Your task to perform on an android device: Do I have any events tomorrow? Image 0: 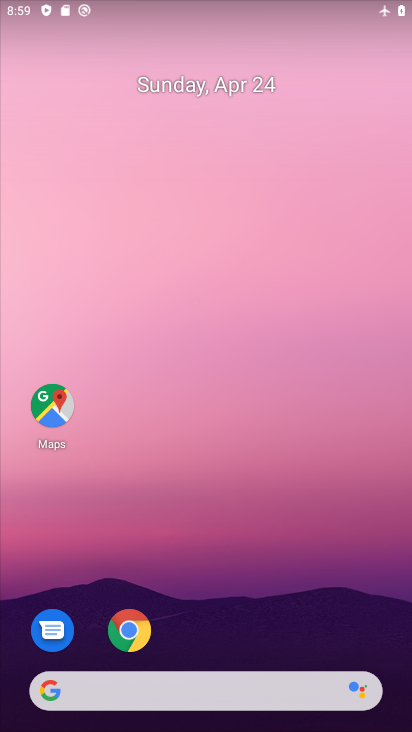
Step 0: drag from (258, 403) to (270, 171)
Your task to perform on an android device: Do I have any events tomorrow? Image 1: 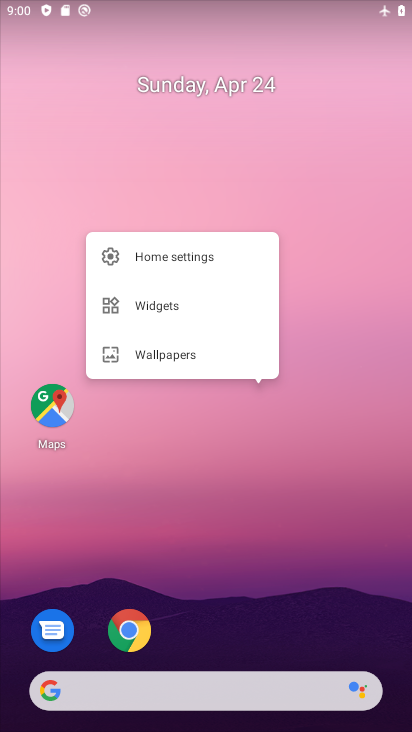
Step 1: click (42, 419)
Your task to perform on an android device: Do I have any events tomorrow? Image 2: 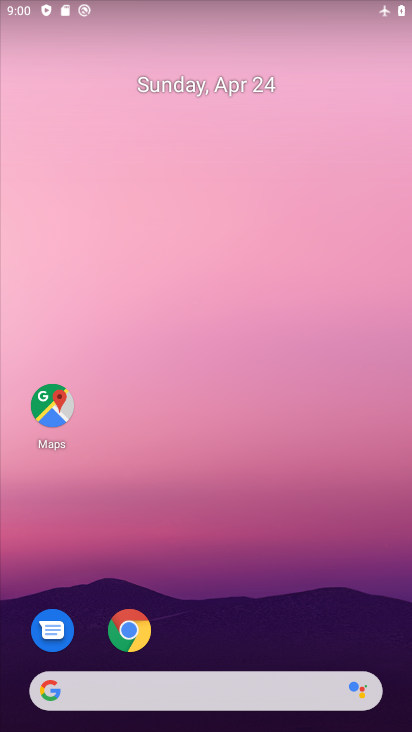
Step 2: drag from (135, 429) to (147, 132)
Your task to perform on an android device: Do I have any events tomorrow? Image 3: 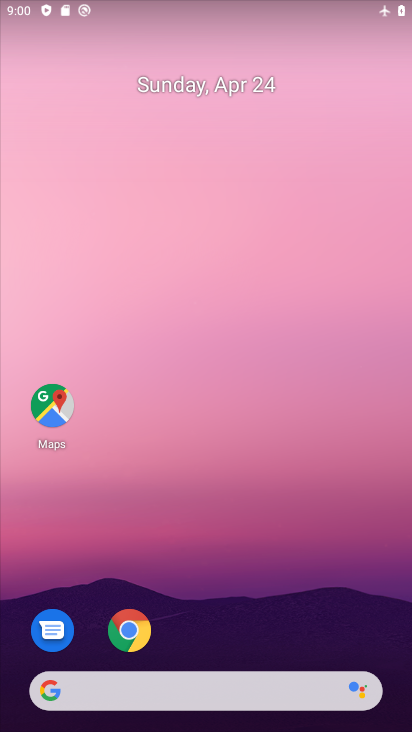
Step 3: drag from (225, 609) to (230, 81)
Your task to perform on an android device: Do I have any events tomorrow? Image 4: 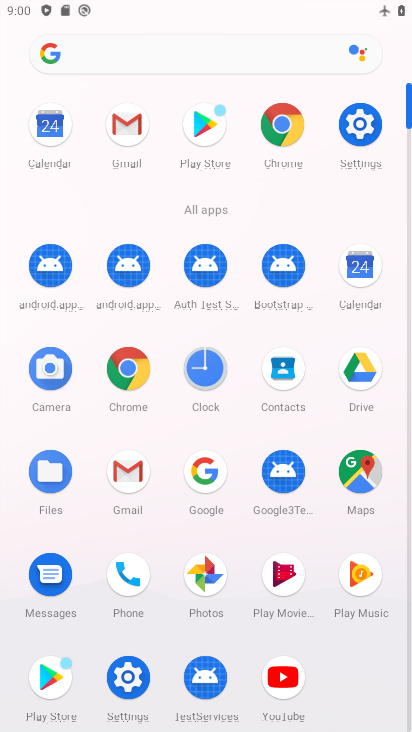
Step 4: click (356, 259)
Your task to perform on an android device: Do I have any events tomorrow? Image 5: 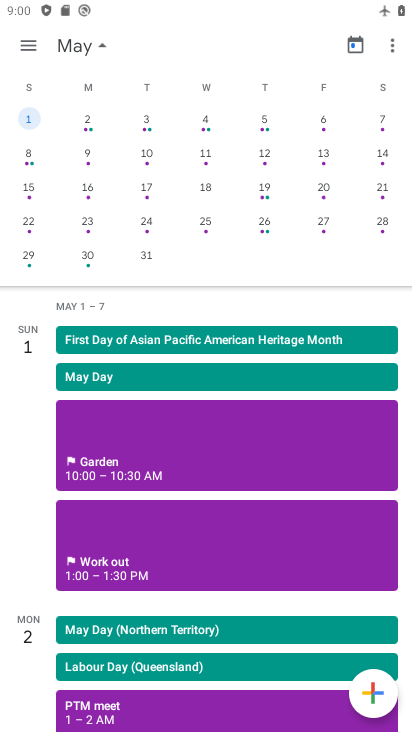
Step 5: drag from (29, 140) to (411, 146)
Your task to perform on an android device: Do I have any events tomorrow? Image 6: 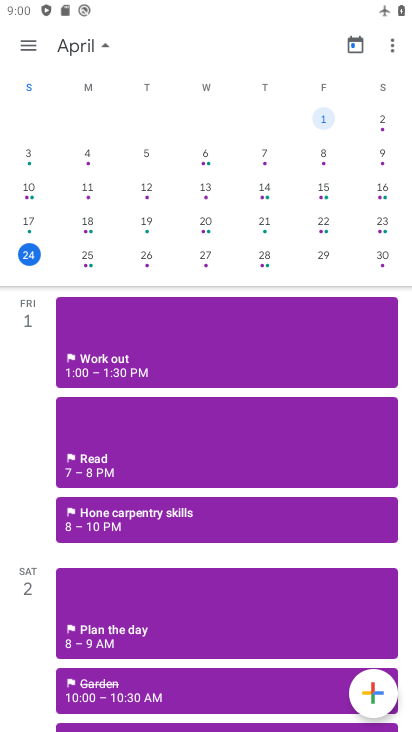
Step 6: click (88, 247)
Your task to perform on an android device: Do I have any events tomorrow? Image 7: 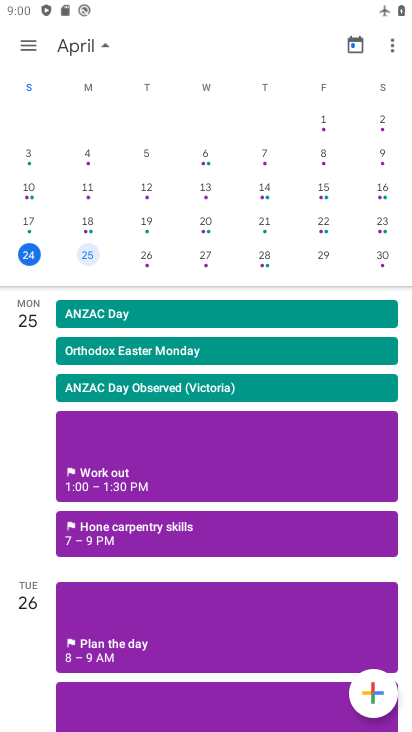
Step 7: task complete